Your task to perform on an android device: refresh tabs in the chrome app Image 0: 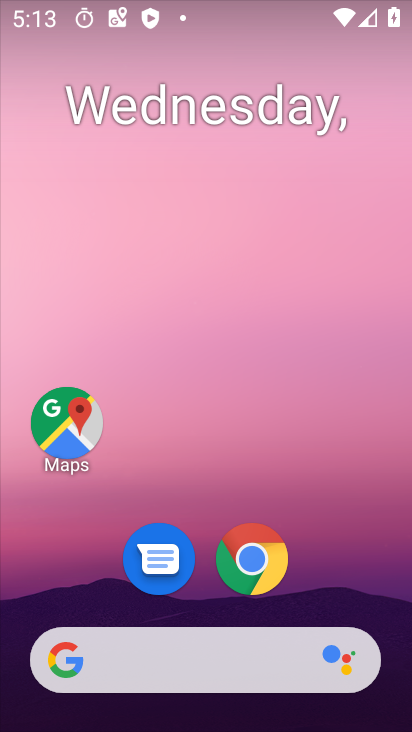
Step 0: click (266, 571)
Your task to perform on an android device: refresh tabs in the chrome app Image 1: 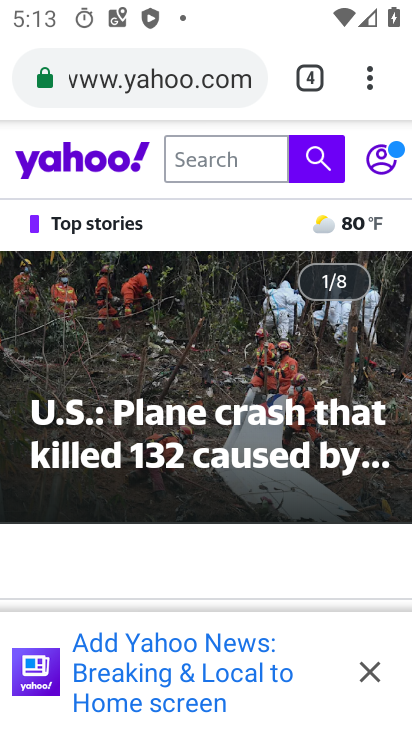
Step 1: click (370, 82)
Your task to perform on an android device: refresh tabs in the chrome app Image 2: 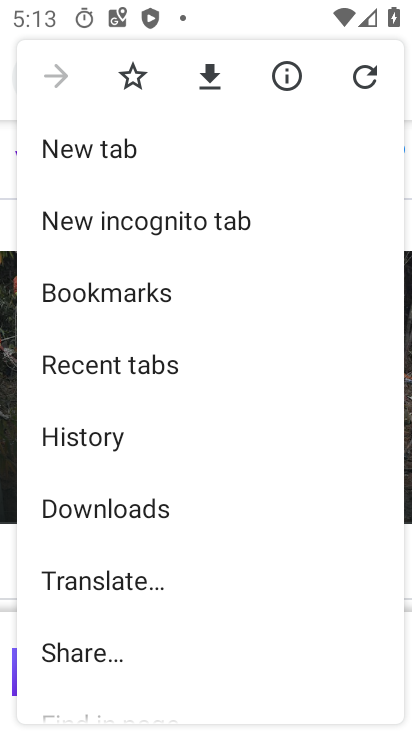
Step 2: click (361, 69)
Your task to perform on an android device: refresh tabs in the chrome app Image 3: 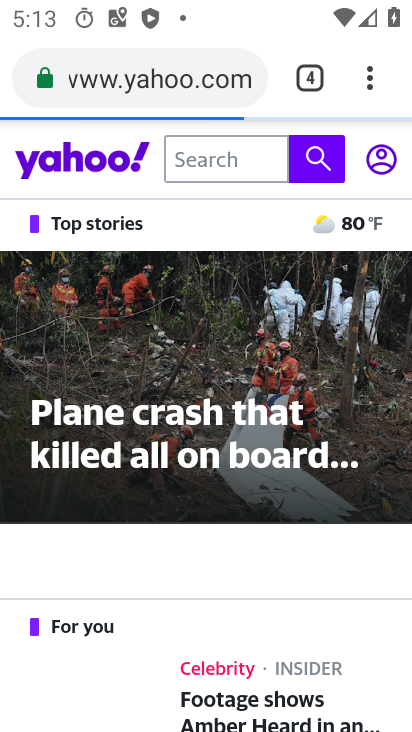
Step 3: task complete